Your task to perform on an android device: Go to internet settings Image 0: 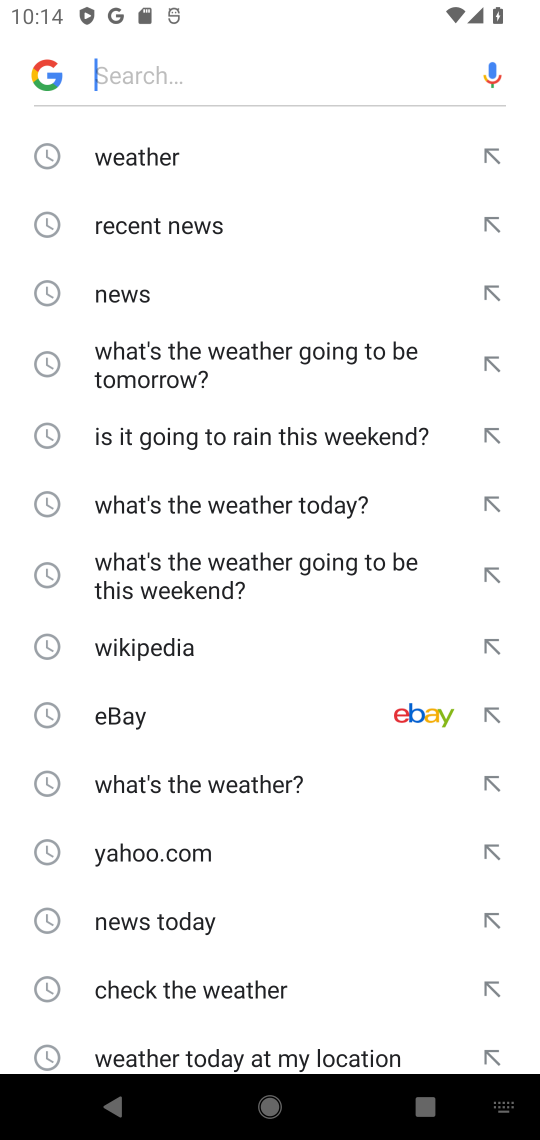
Step 0: press home button
Your task to perform on an android device: Go to internet settings Image 1: 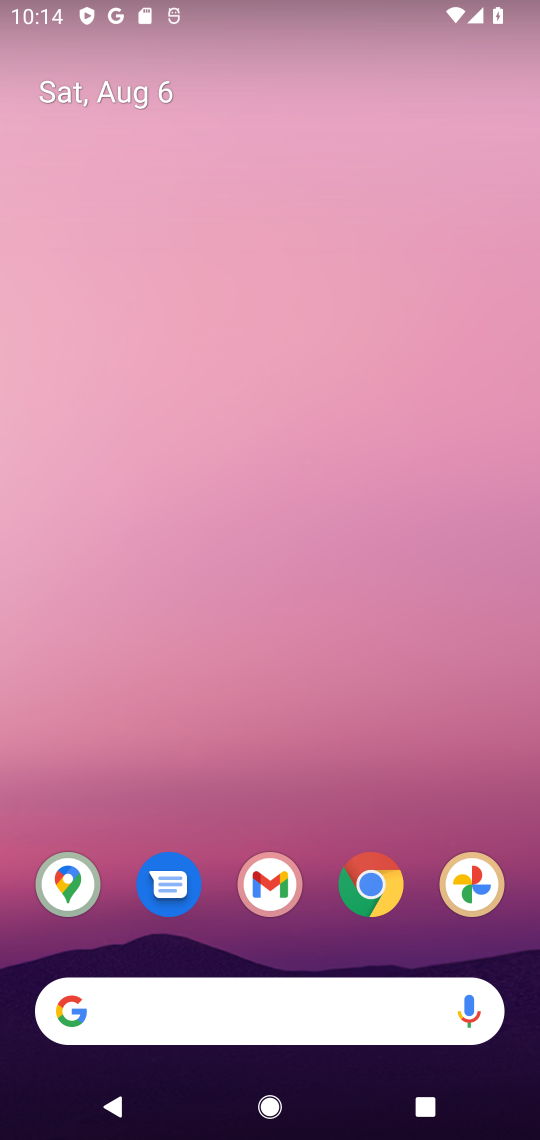
Step 1: drag from (438, 943) to (367, 99)
Your task to perform on an android device: Go to internet settings Image 2: 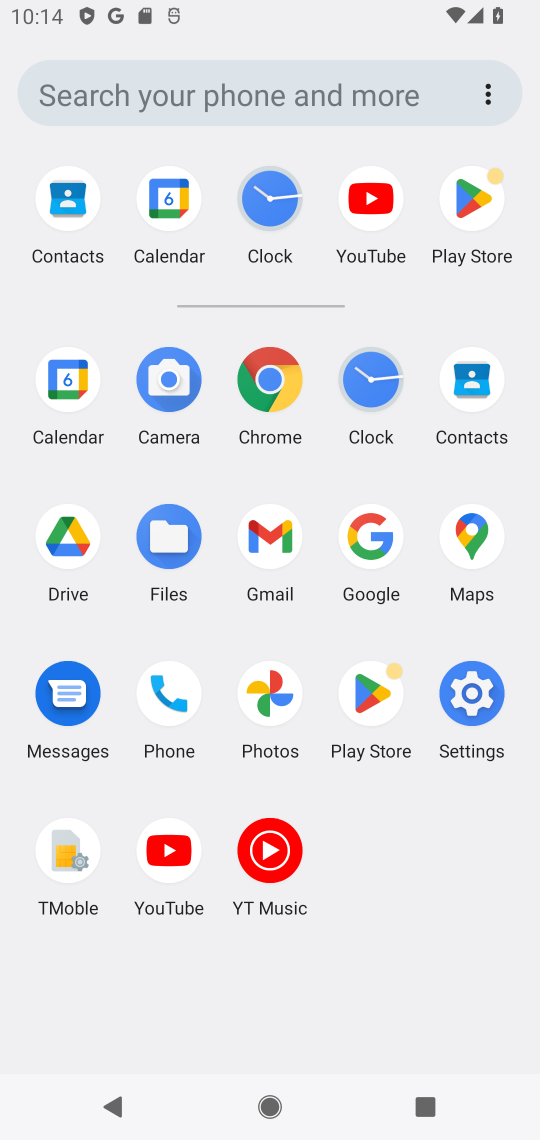
Step 2: click (469, 693)
Your task to perform on an android device: Go to internet settings Image 3: 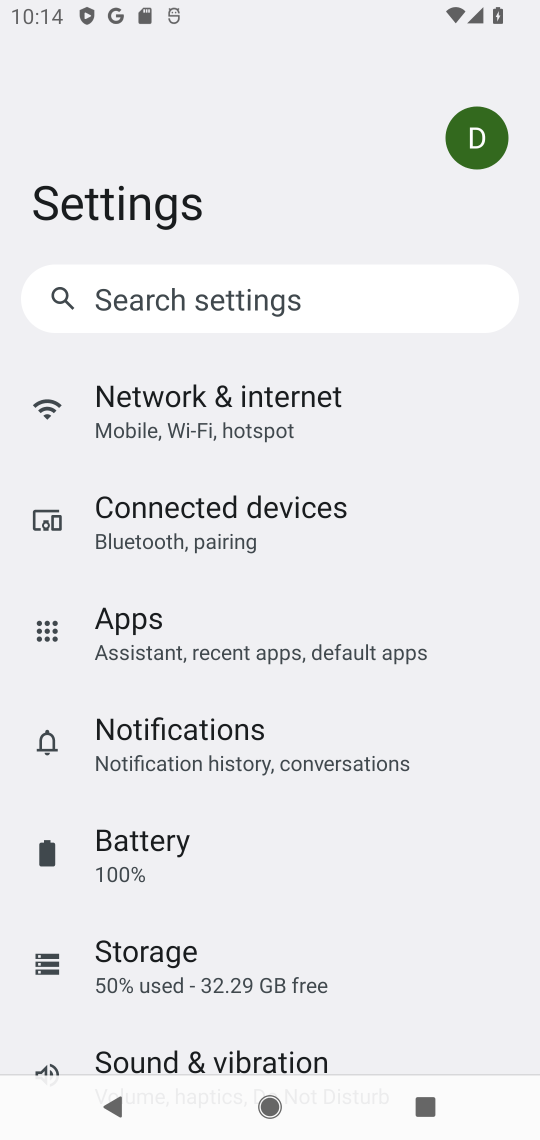
Step 3: click (129, 398)
Your task to perform on an android device: Go to internet settings Image 4: 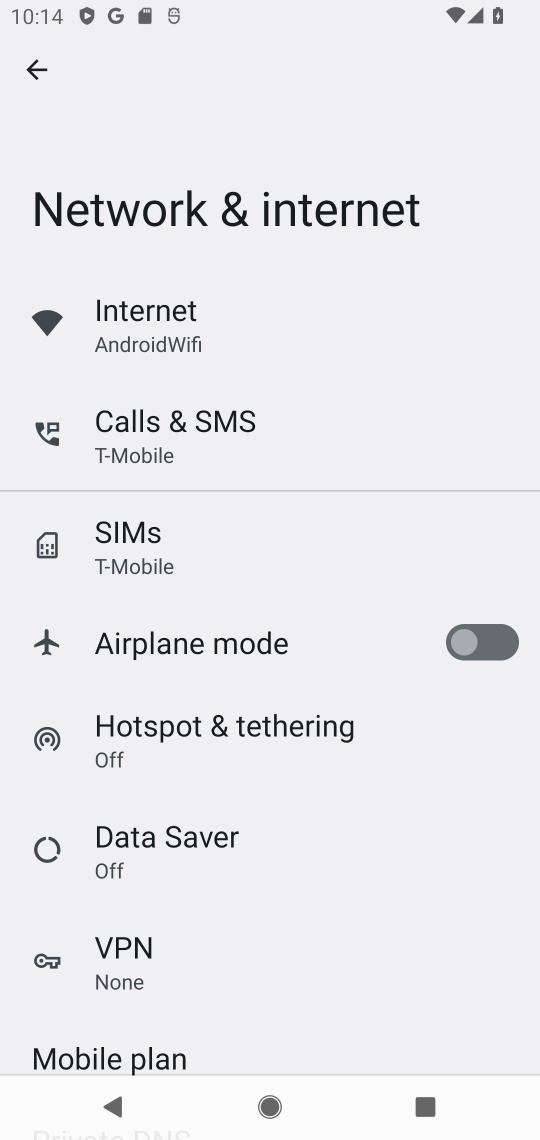
Step 4: click (176, 327)
Your task to perform on an android device: Go to internet settings Image 5: 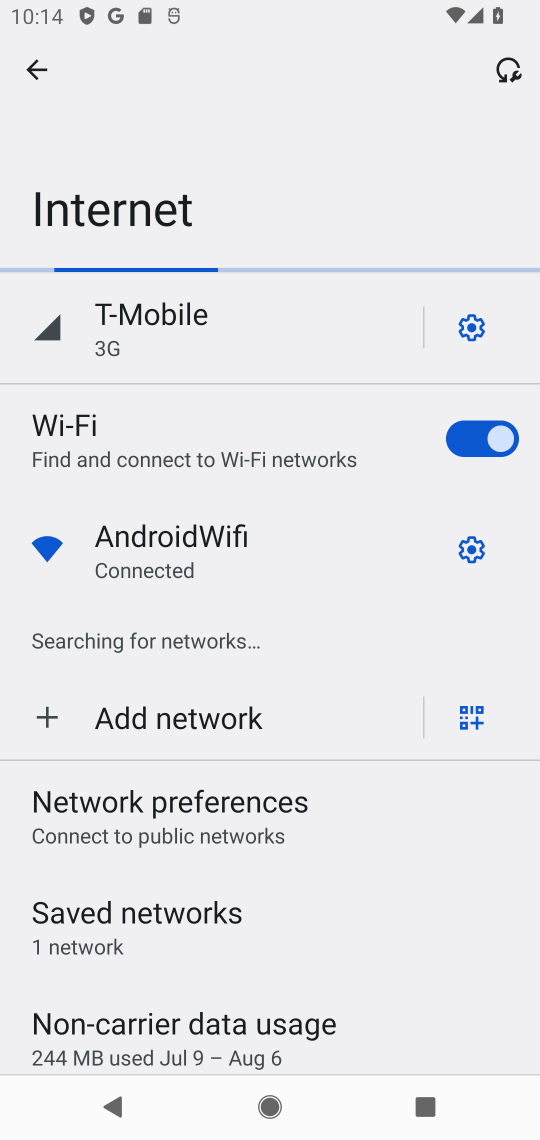
Step 5: task complete